Your task to perform on an android device: check the backup settings in the google photos Image 0: 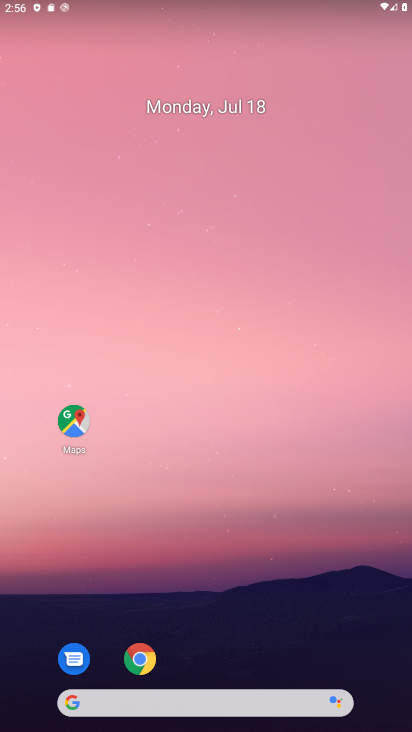
Step 0: drag from (209, 683) to (258, 125)
Your task to perform on an android device: check the backup settings in the google photos Image 1: 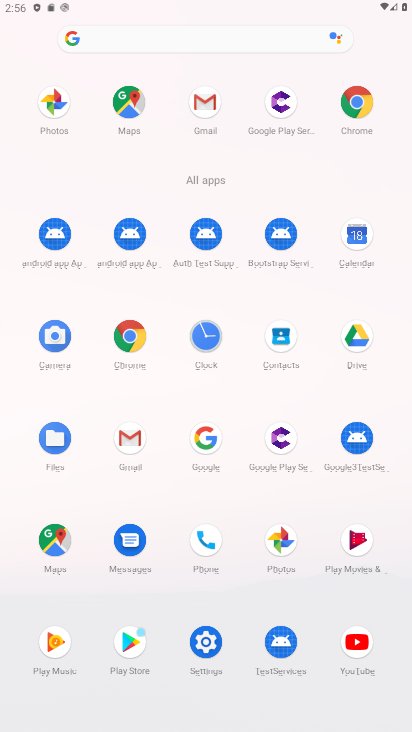
Step 1: click (280, 536)
Your task to perform on an android device: check the backup settings in the google photos Image 2: 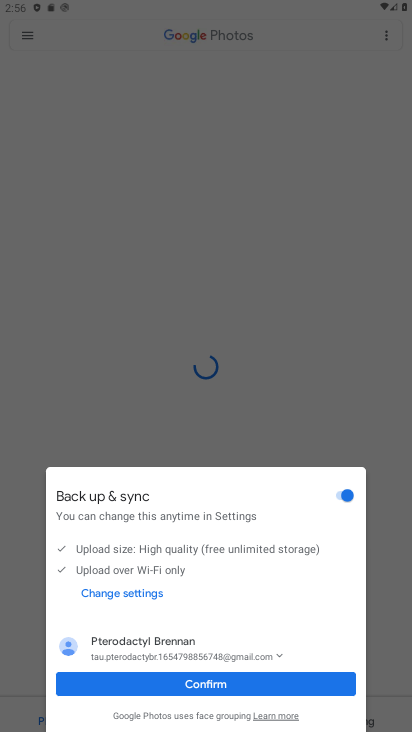
Step 2: click (210, 677)
Your task to perform on an android device: check the backup settings in the google photos Image 3: 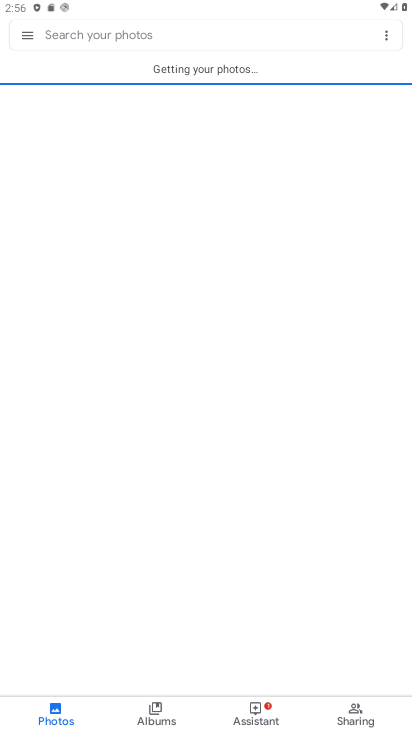
Step 3: click (37, 30)
Your task to perform on an android device: check the backup settings in the google photos Image 4: 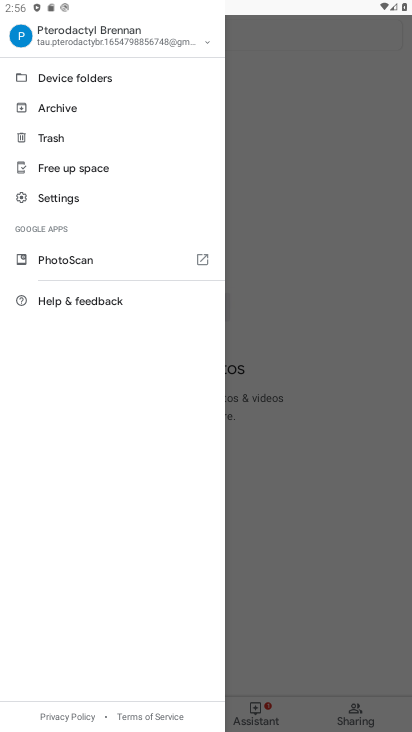
Step 4: click (106, 199)
Your task to perform on an android device: check the backup settings in the google photos Image 5: 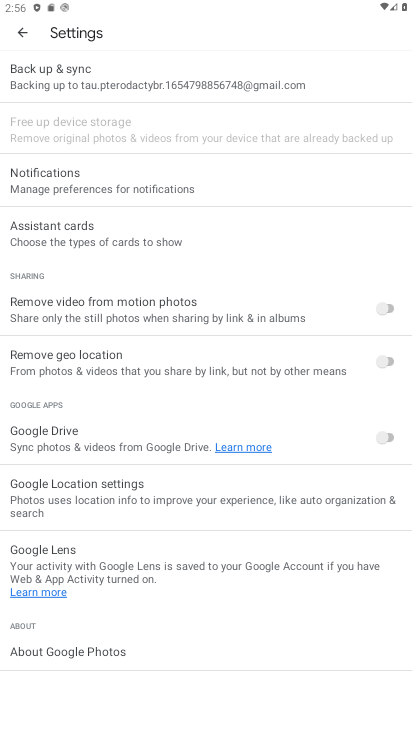
Step 5: click (170, 88)
Your task to perform on an android device: check the backup settings in the google photos Image 6: 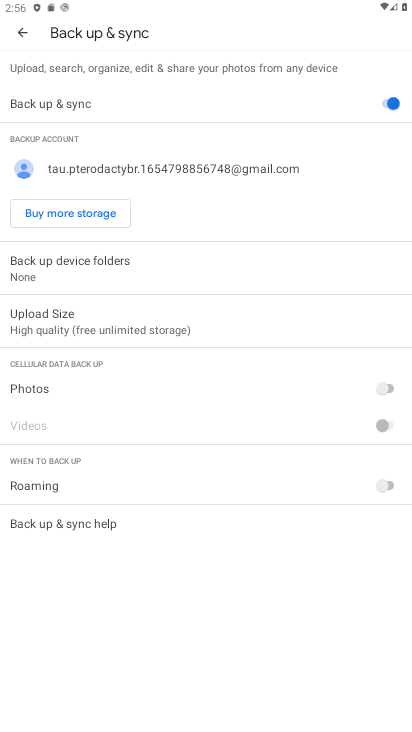
Step 6: task complete